Your task to perform on an android device: find photos in the google photos app Image 0: 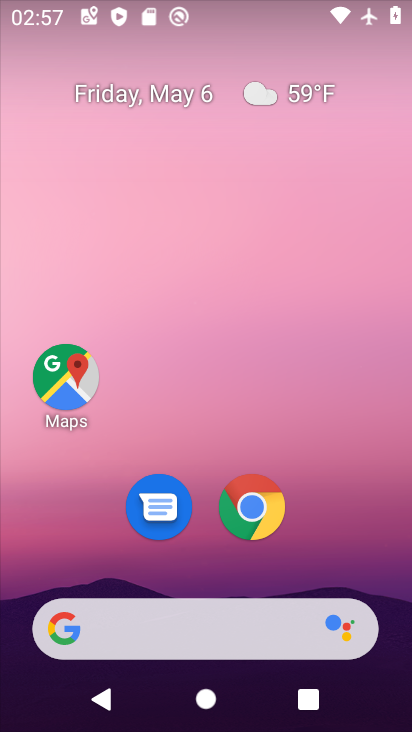
Step 0: drag from (317, 547) to (275, 119)
Your task to perform on an android device: find photos in the google photos app Image 1: 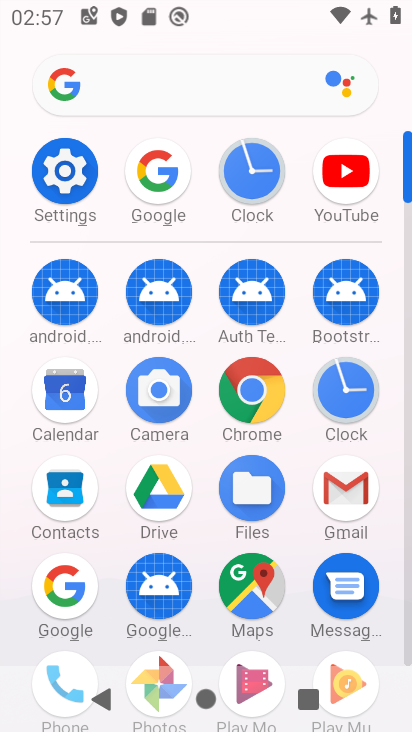
Step 1: drag from (200, 570) to (175, 250)
Your task to perform on an android device: find photos in the google photos app Image 2: 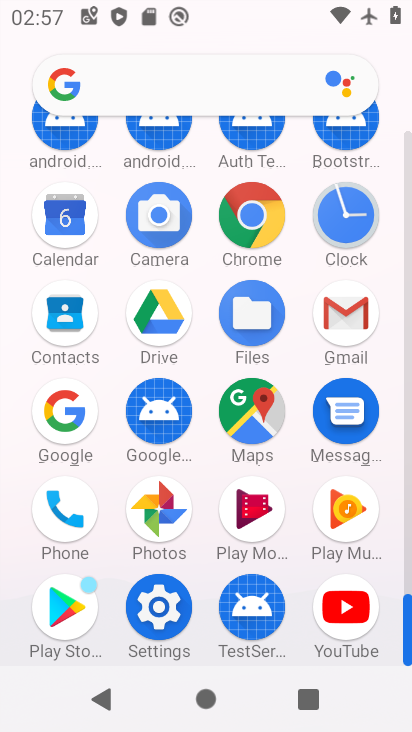
Step 2: click (152, 503)
Your task to perform on an android device: find photos in the google photos app Image 3: 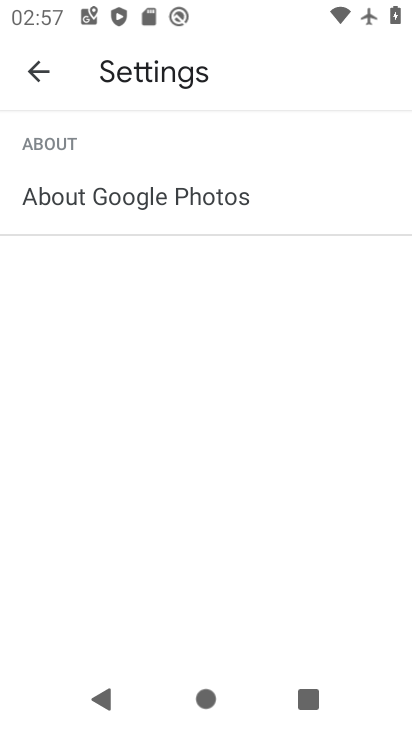
Step 3: press back button
Your task to perform on an android device: find photos in the google photos app Image 4: 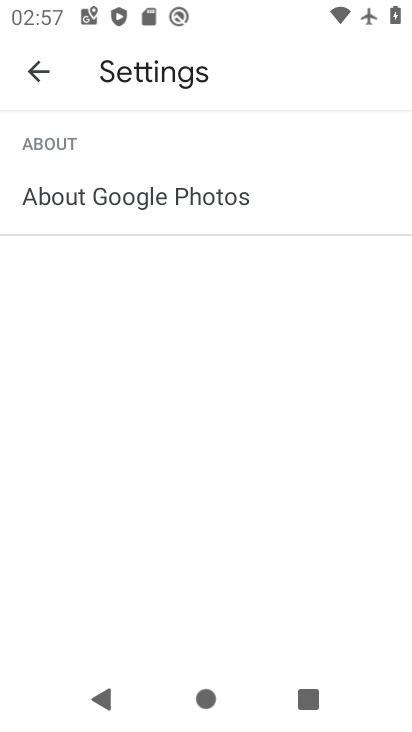
Step 4: press back button
Your task to perform on an android device: find photos in the google photos app Image 5: 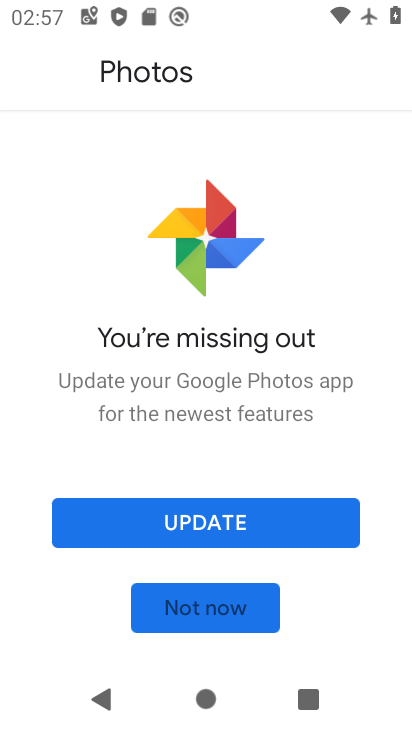
Step 5: click (216, 527)
Your task to perform on an android device: find photos in the google photos app Image 6: 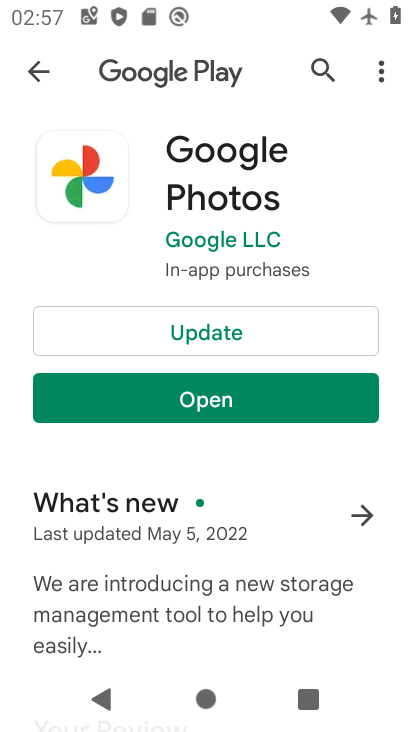
Step 6: click (196, 340)
Your task to perform on an android device: find photos in the google photos app Image 7: 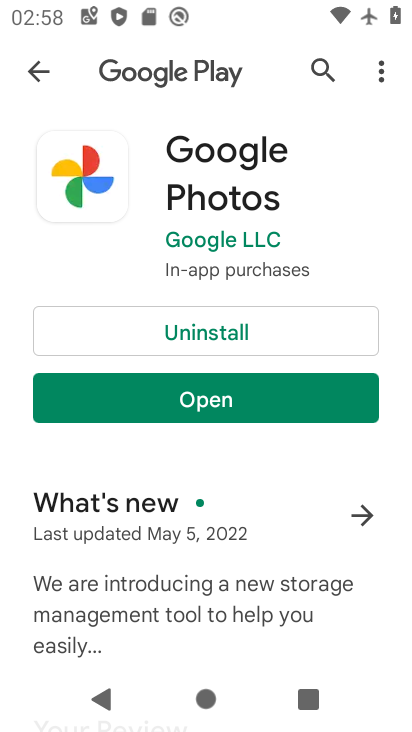
Step 7: click (223, 409)
Your task to perform on an android device: find photos in the google photos app Image 8: 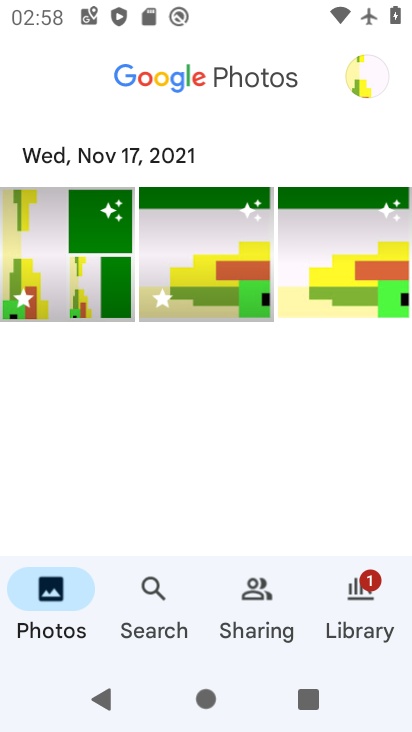
Step 8: task complete